Your task to perform on an android device: open app "WhatsApp Messenger" (install if not already installed) Image 0: 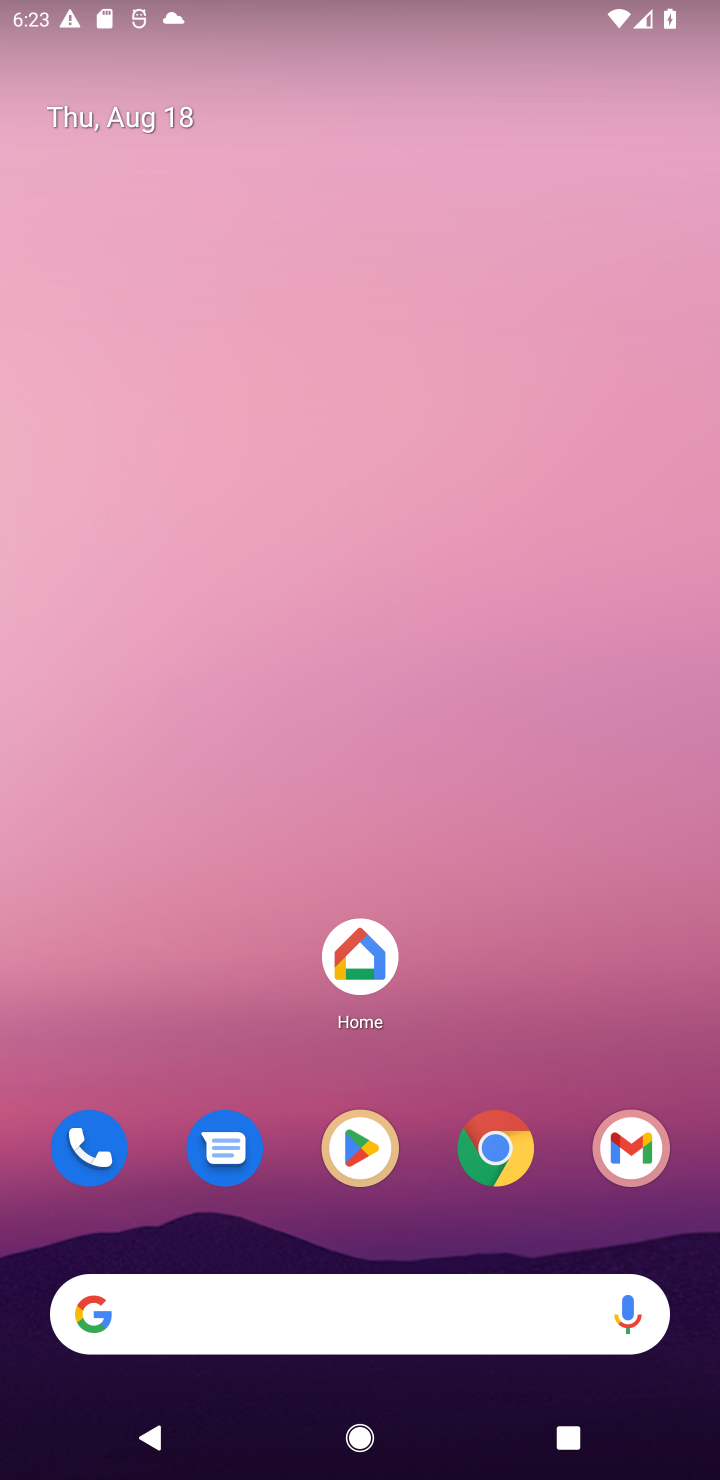
Step 0: drag from (448, 1148) to (344, 206)
Your task to perform on an android device: open app "WhatsApp Messenger" (install if not already installed) Image 1: 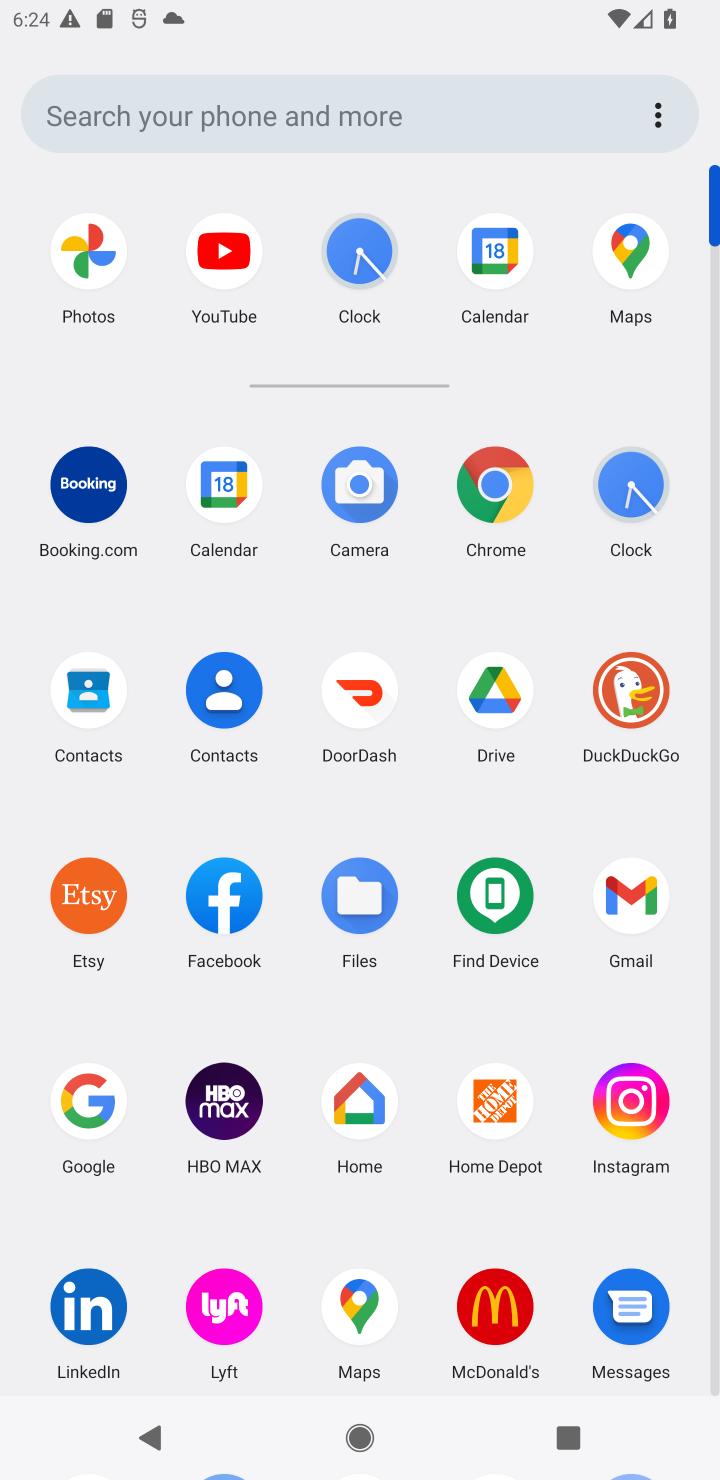
Step 1: drag from (441, 1195) to (452, 572)
Your task to perform on an android device: open app "WhatsApp Messenger" (install if not already installed) Image 2: 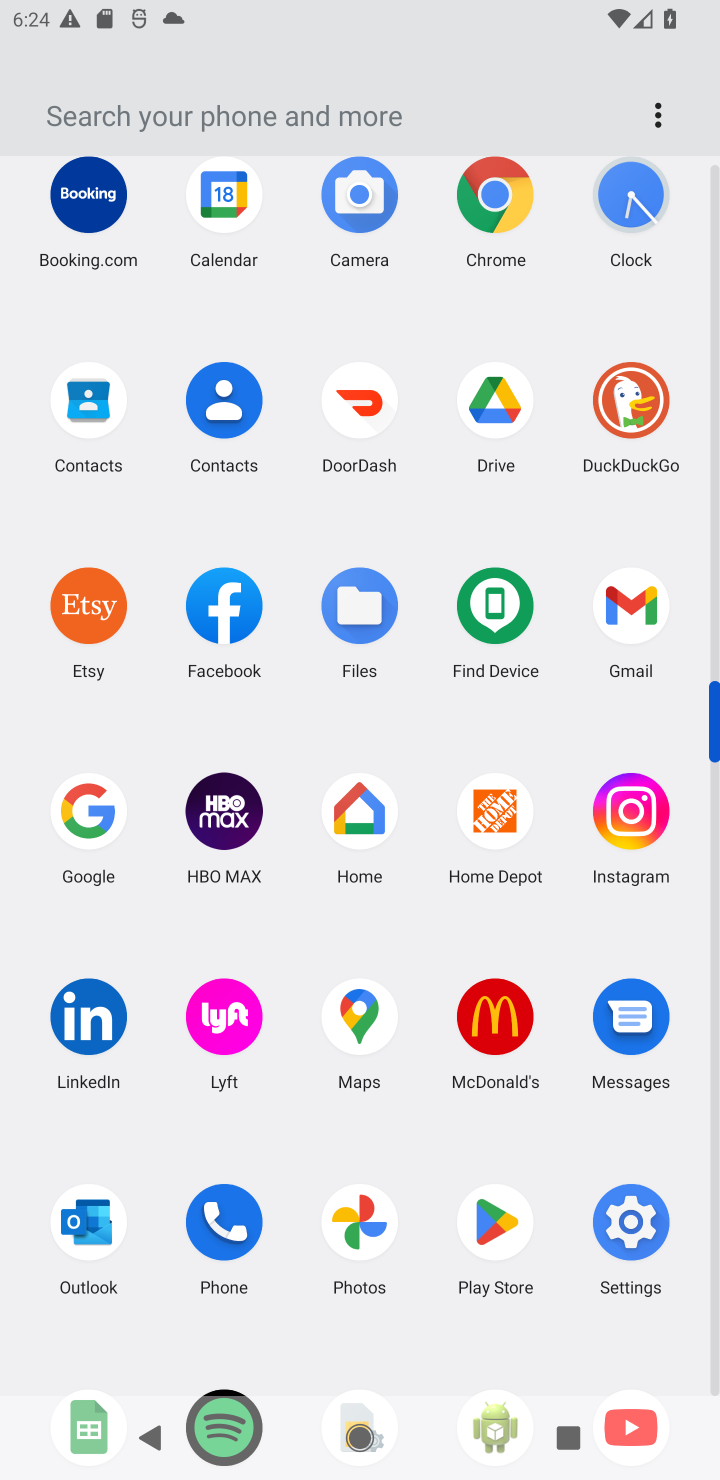
Step 2: click (494, 1240)
Your task to perform on an android device: open app "WhatsApp Messenger" (install if not already installed) Image 3: 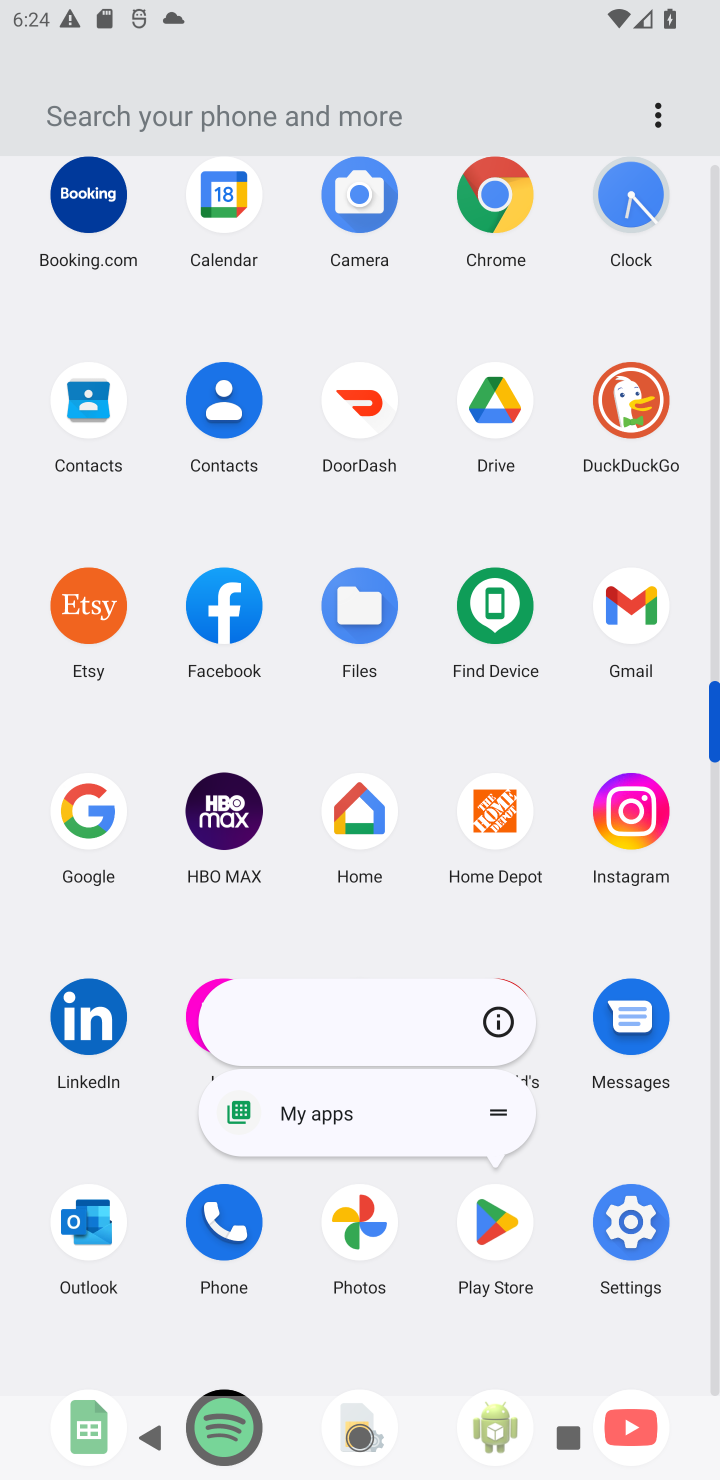
Step 3: click (494, 1240)
Your task to perform on an android device: open app "WhatsApp Messenger" (install if not already installed) Image 4: 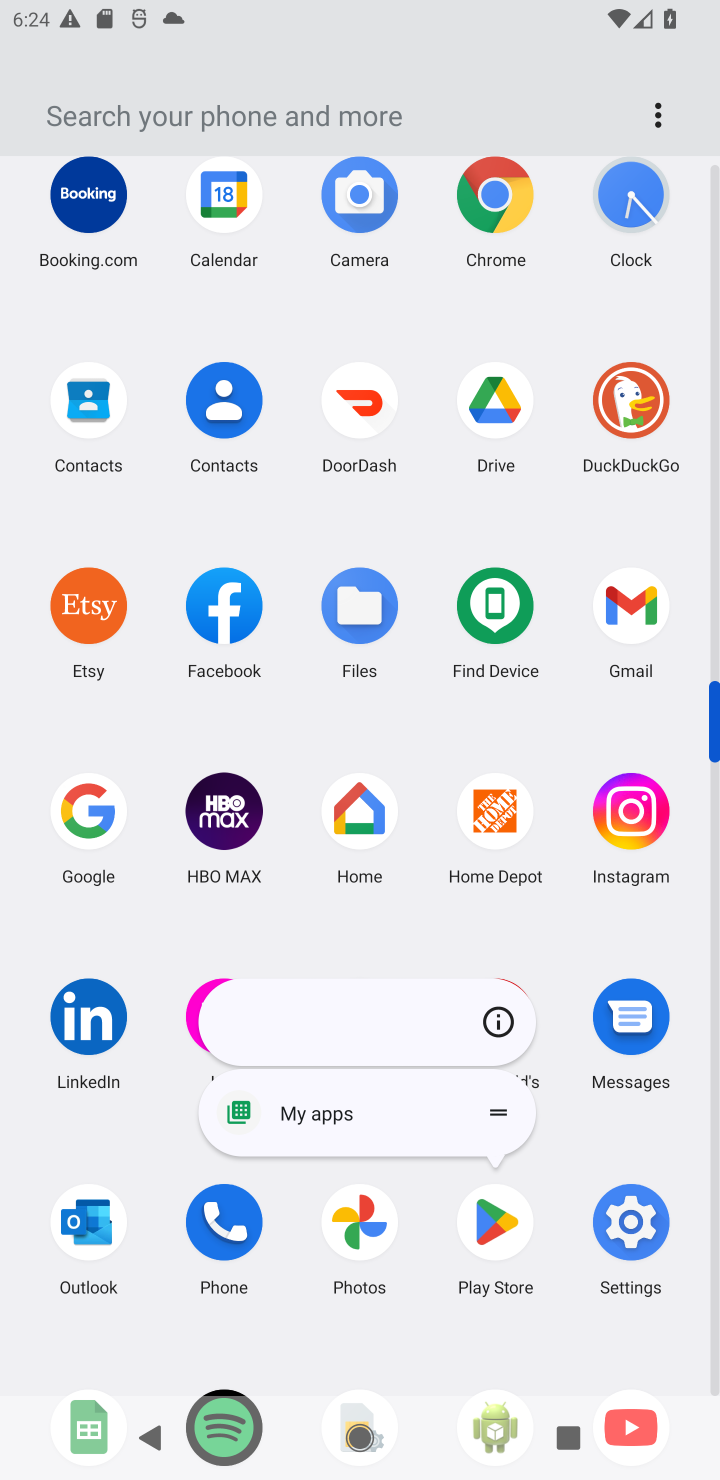
Step 4: click (494, 1240)
Your task to perform on an android device: open app "WhatsApp Messenger" (install if not already installed) Image 5: 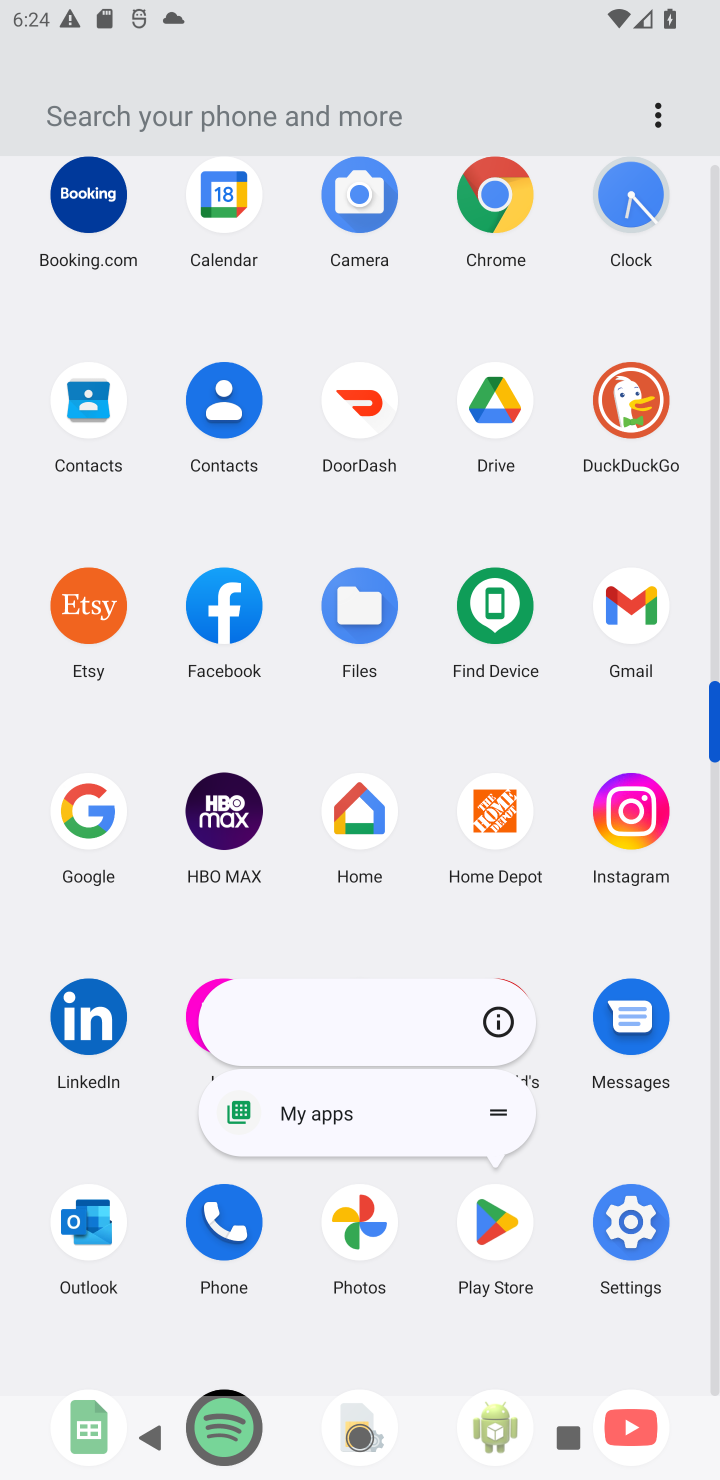
Step 5: click (492, 1236)
Your task to perform on an android device: open app "WhatsApp Messenger" (install if not already installed) Image 6: 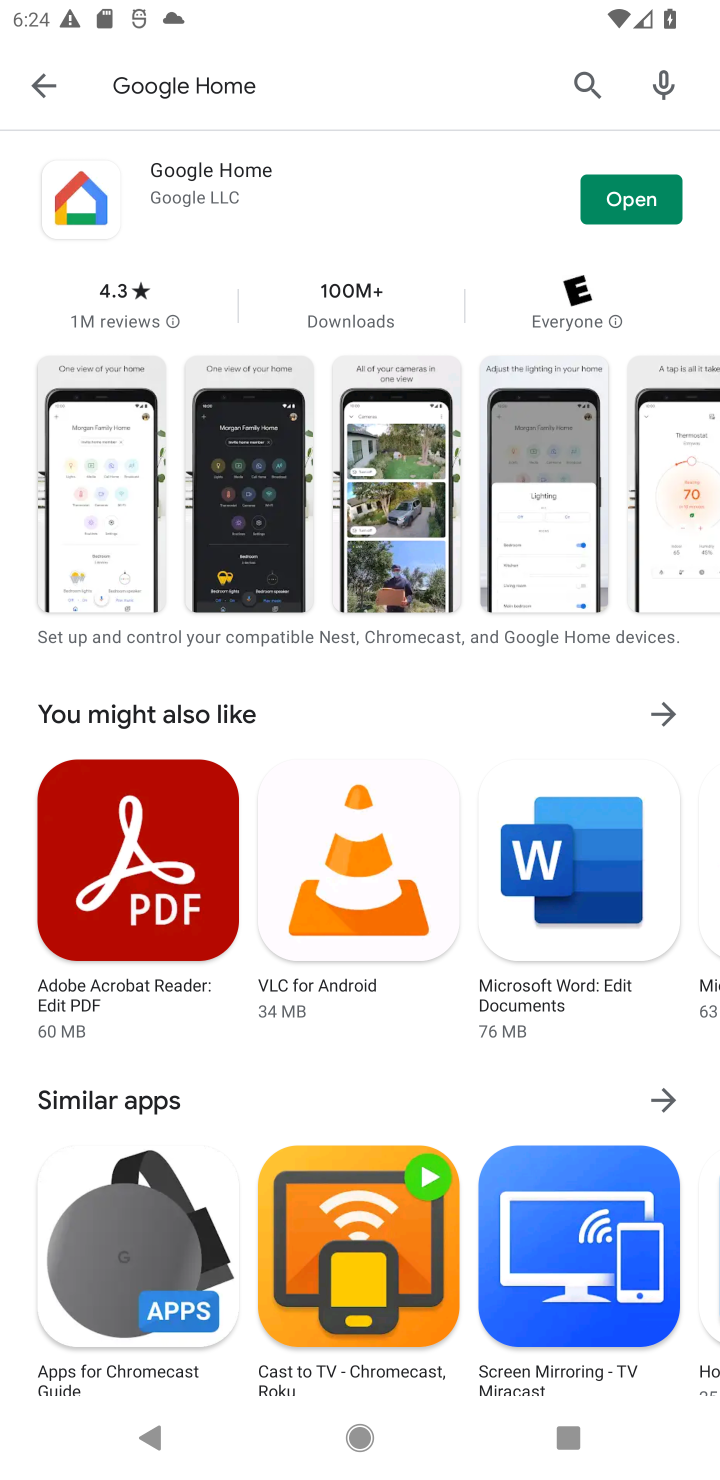
Step 6: press back button
Your task to perform on an android device: open app "WhatsApp Messenger" (install if not already installed) Image 7: 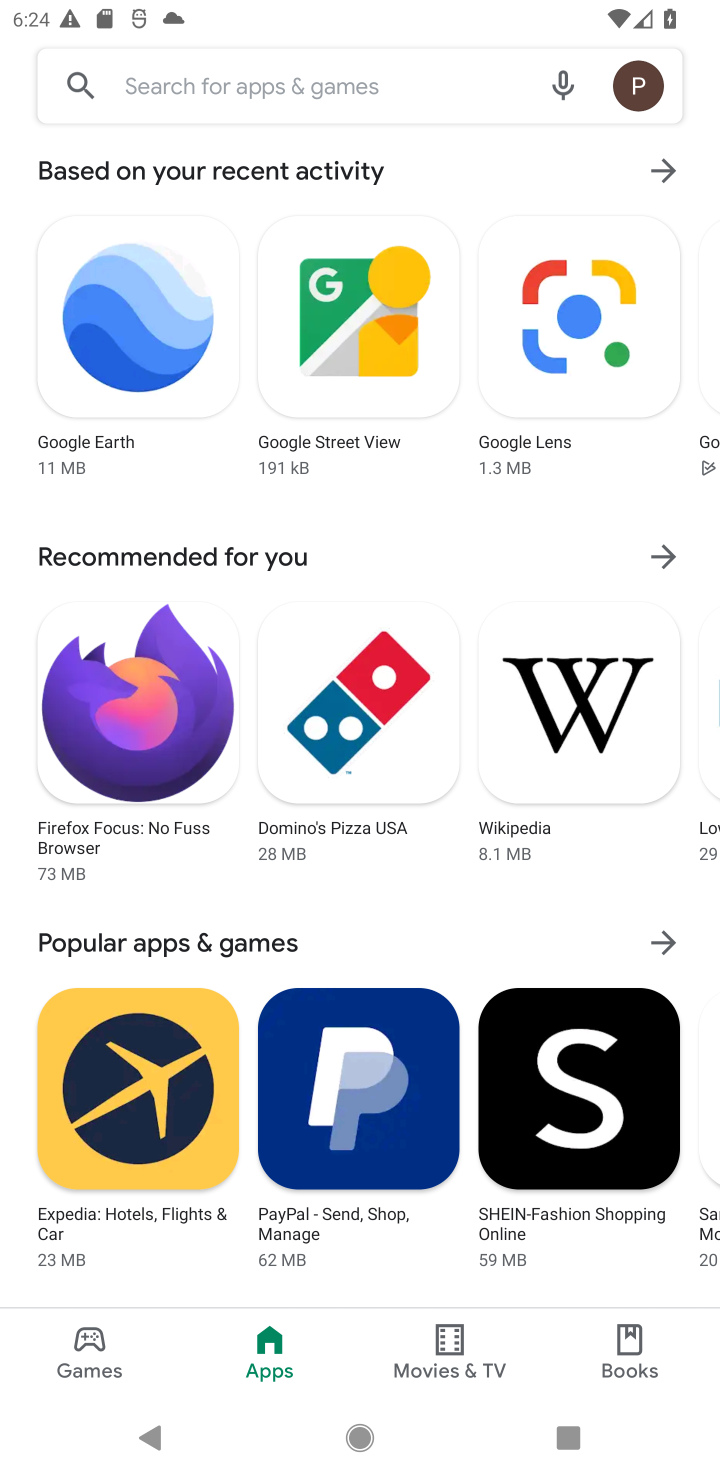
Step 7: click (262, 100)
Your task to perform on an android device: open app "WhatsApp Messenger" (install if not already installed) Image 8: 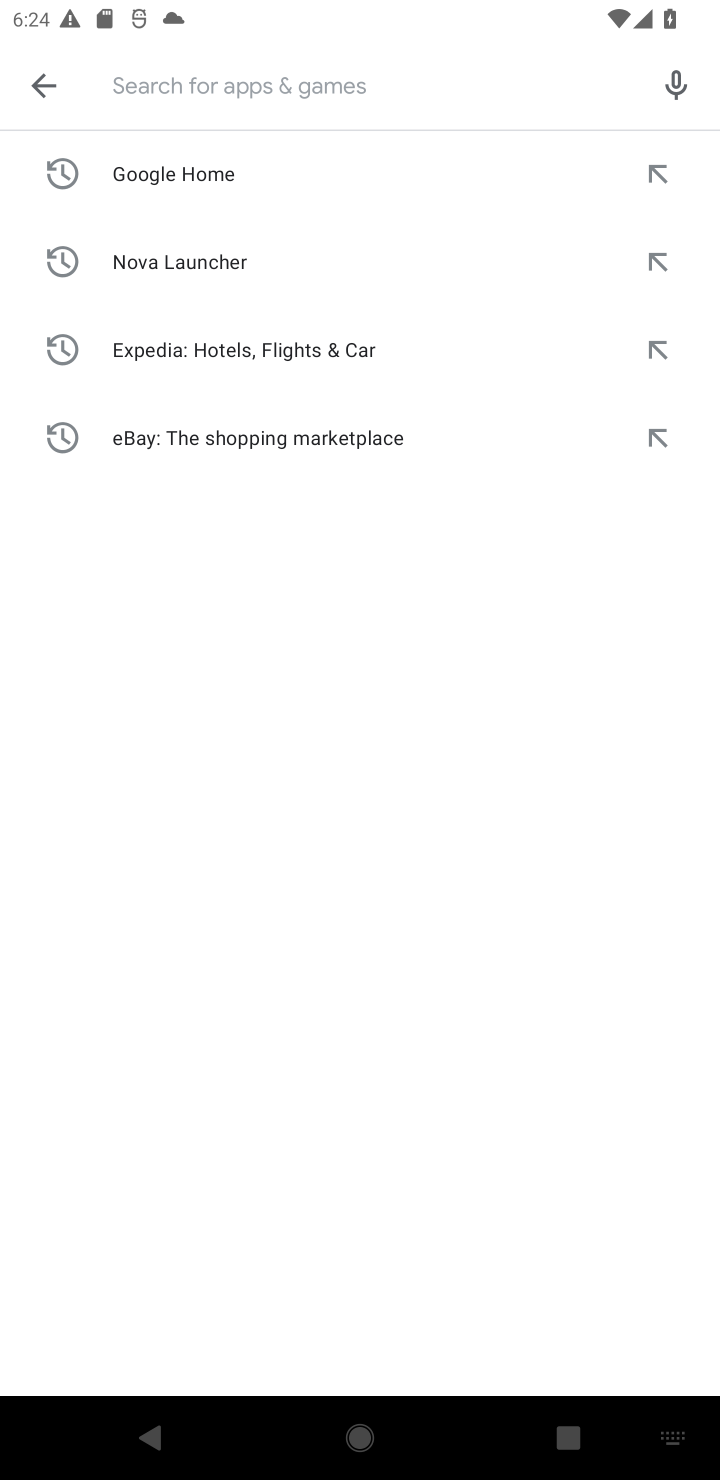
Step 8: type "WhatsApp Messenger"
Your task to perform on an android device: open app "WhatsApp Messenger" (install if not already installed) Image 9: 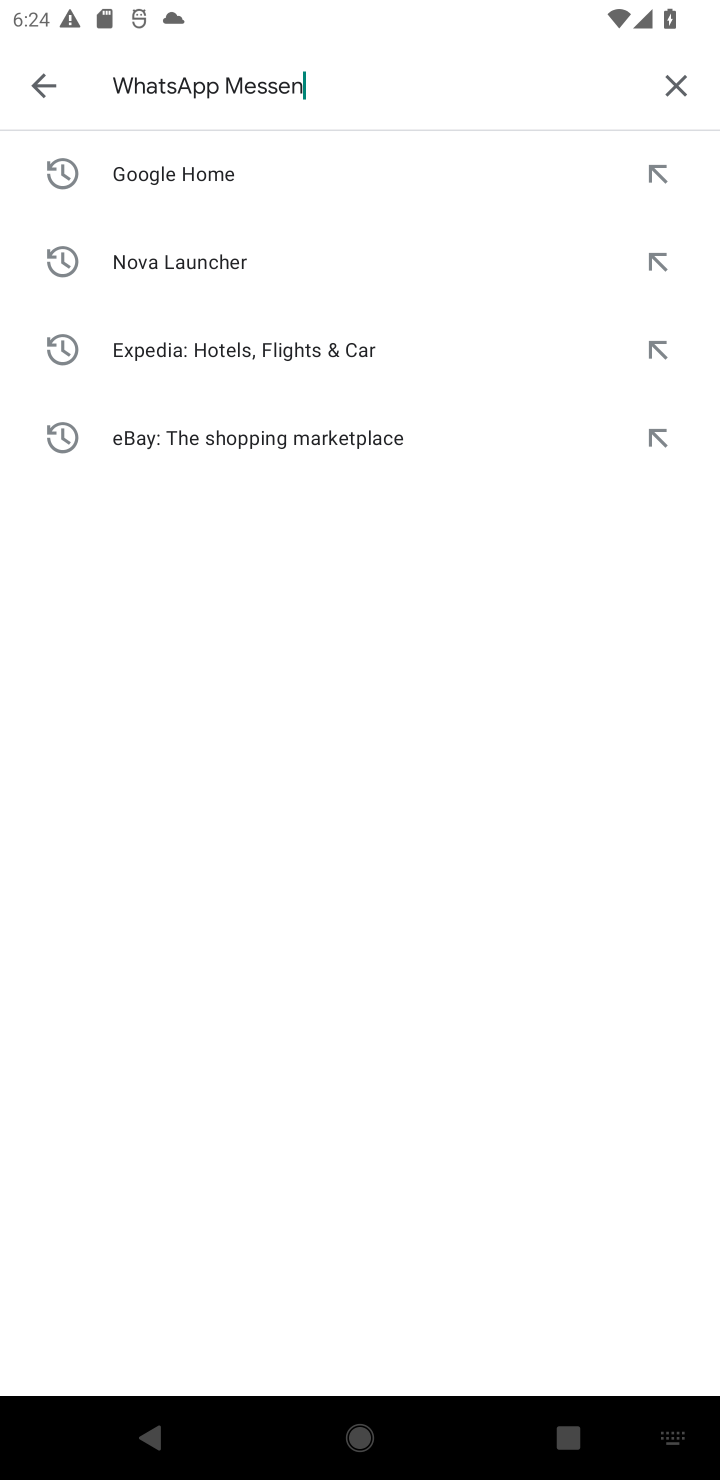
Step 9: press enter
Your task to perform on an android device: open app "WhatsApp Messenger" (install if not already installed) Image 10: 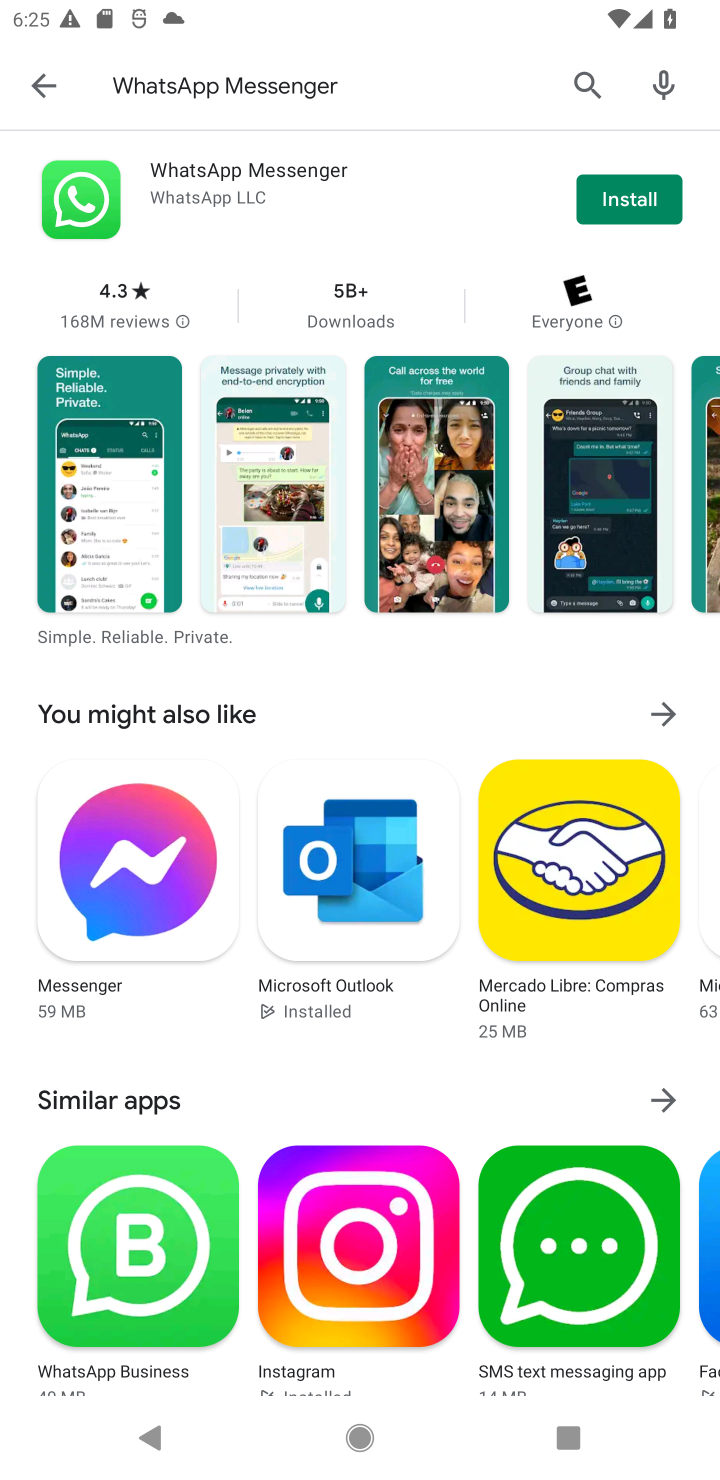
Step 10: click (597, 211)
Your task to perform on an android device: open app "WhatsApp Messenger" (install if not already installed) Image 11: 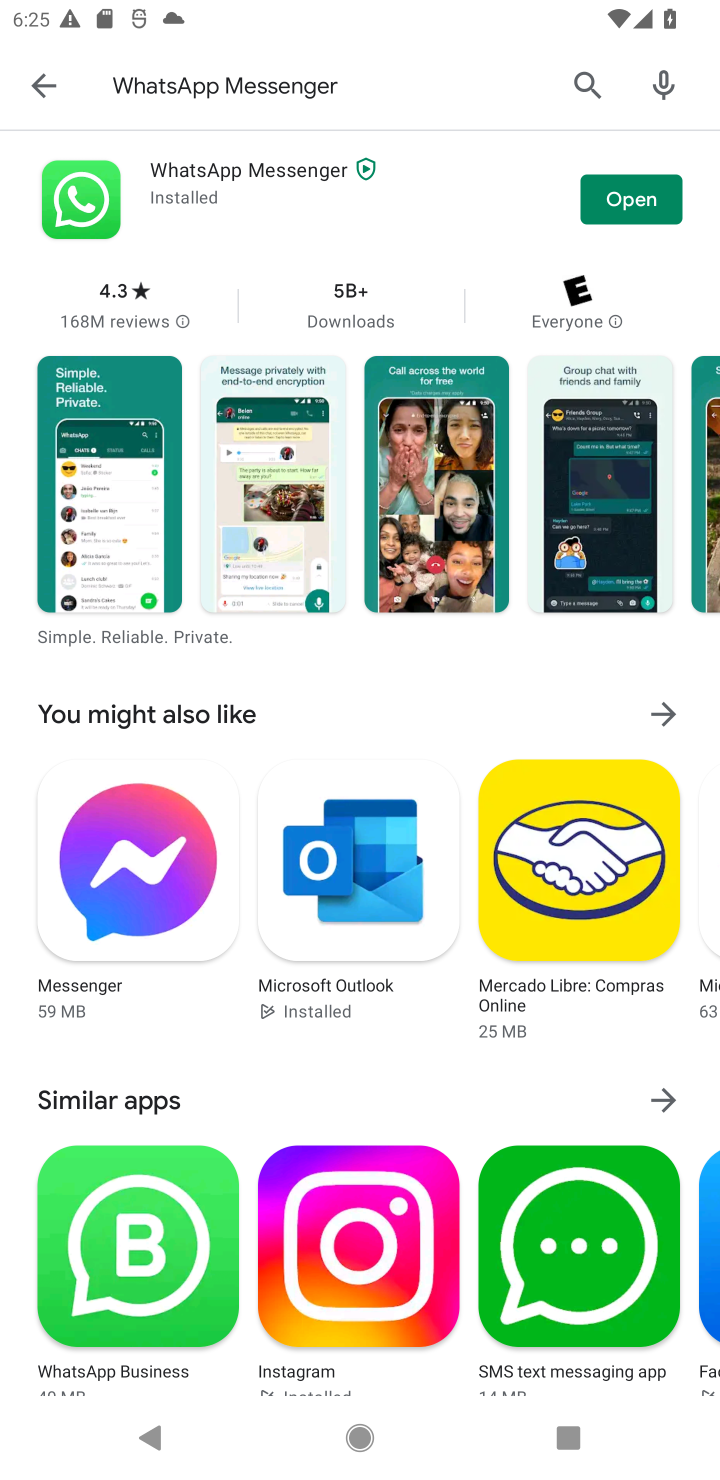
Step 11: click (607, 203)
Your task to perform on an android device: open app "WhatsApp Messenger" (install if not already installed) Image 12: 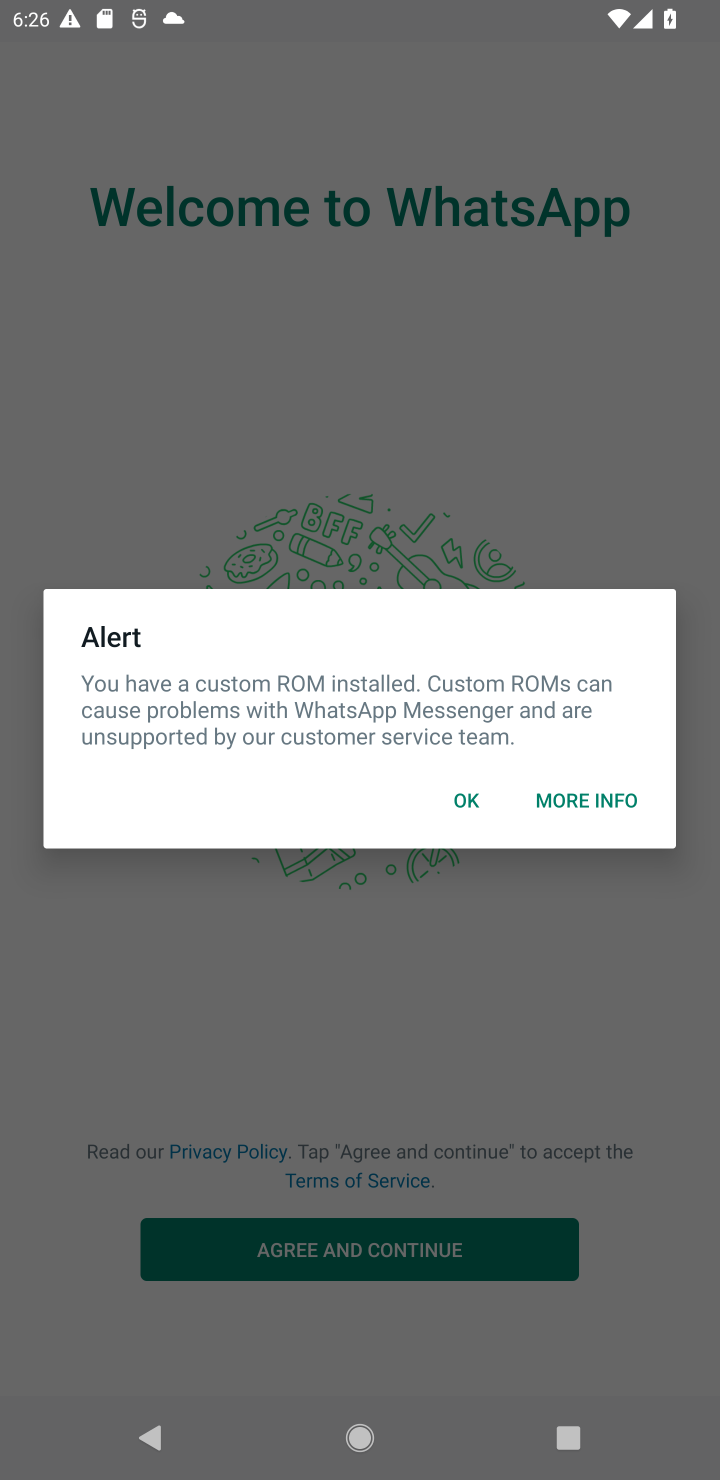
Step 12: task complete